Your task to perform on an android device: Show me popular videos on Youtube Image 0: 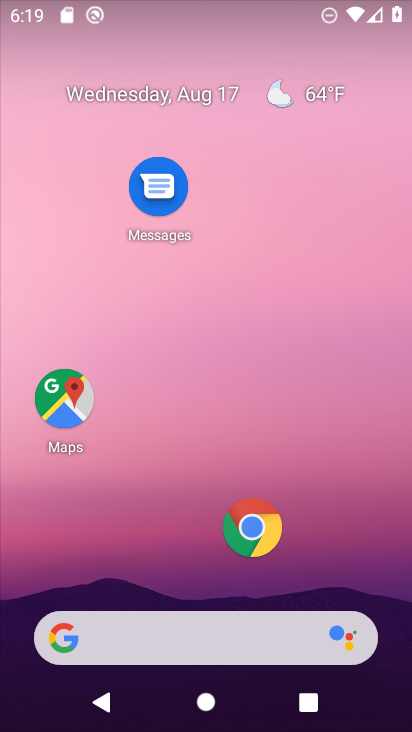
Step 0: drag from (127, 638) to (150, 336)
Your task to perform on an android device: Show me popular videos on Youtube Image 1: 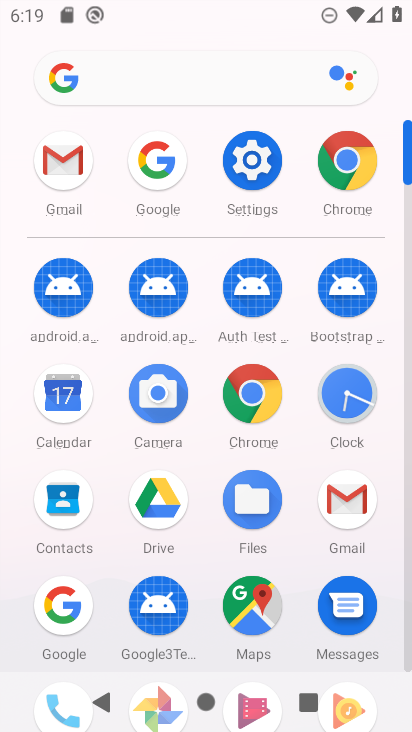
Step 1: drag from (194, 607) to (215, 322)
Your task to perform on an android device: Show me popular videos on Youtube Image 2: 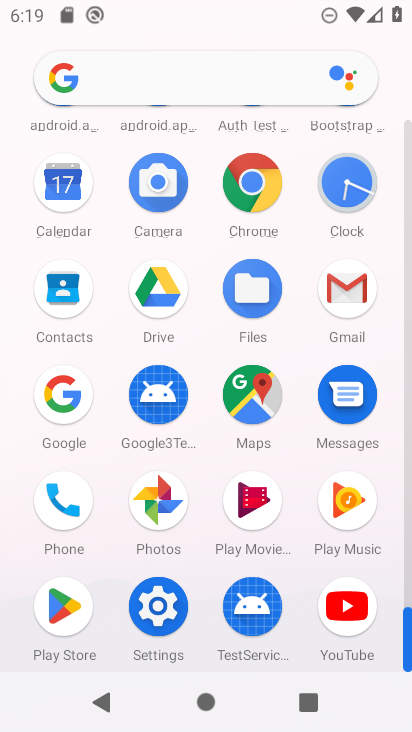
Step 2: click (342, 605)
Your task to perform on an android device: Show me popular videos on Youtube Image 3: 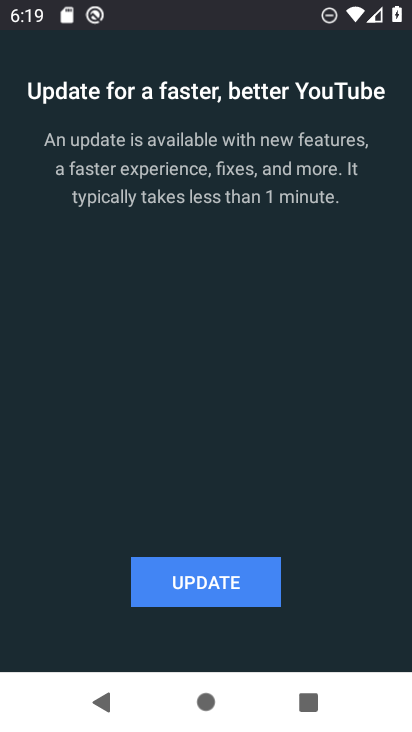
Step 3: click (163, 582)
Your task to perform on an android device: Show me popular videos on Youtube Image 4: 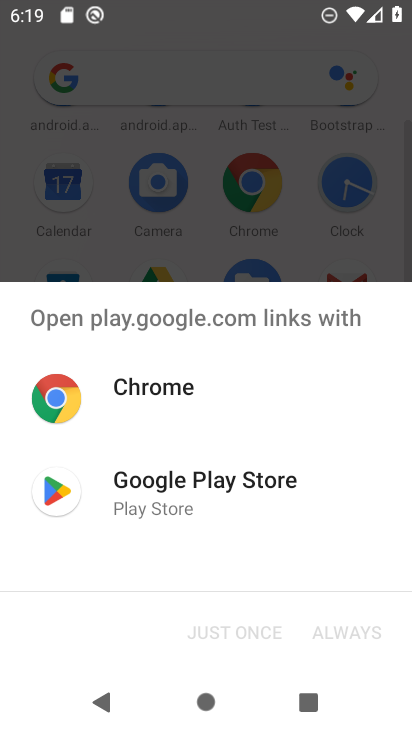
Step 4: click (182, 496)
Your task to perform on an android device: Show me popular videos on Youtube Image 5: 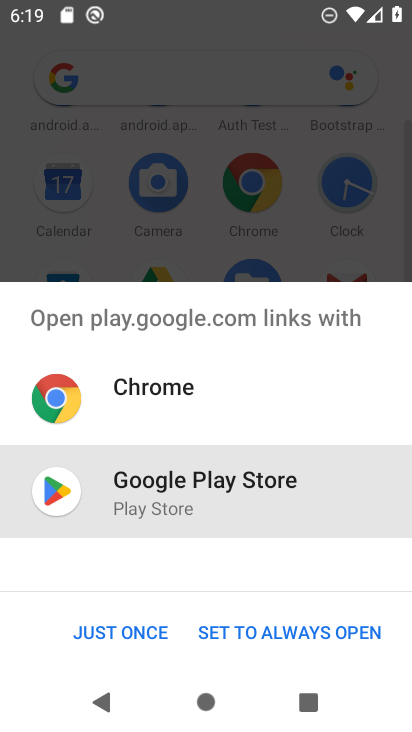
Step 5: click (129, 626)
Your task to perform on an android device: Show me popular videos on Youtube Image 6: 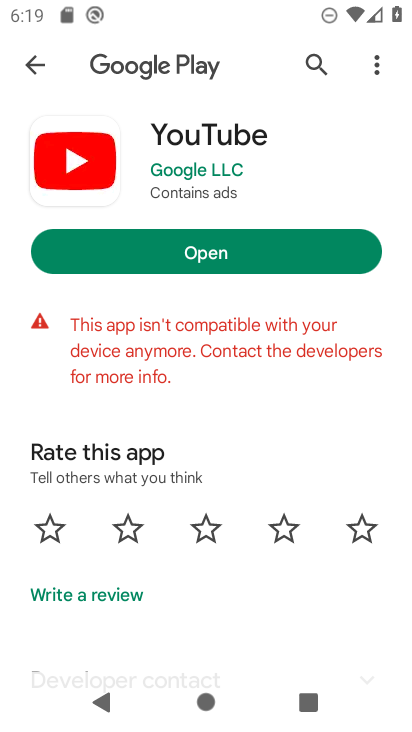
Step 6: click (152, 257)
Your task to perform on an android device: Show me popular videos on Youtube Image 7: 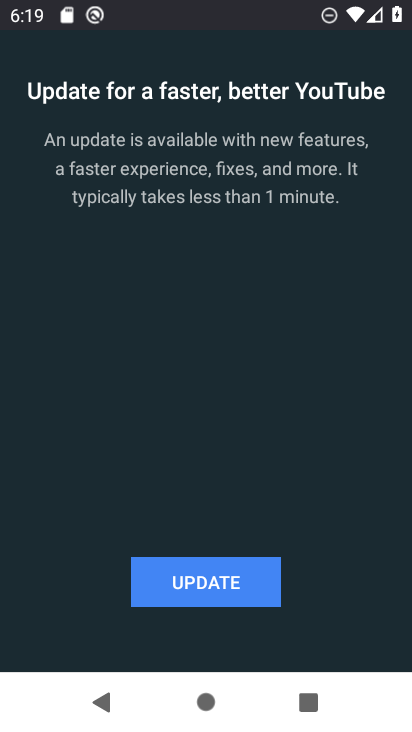
Step 7: task complete